Your task to perform on an android device: Search for the best 4K TV Image 0: 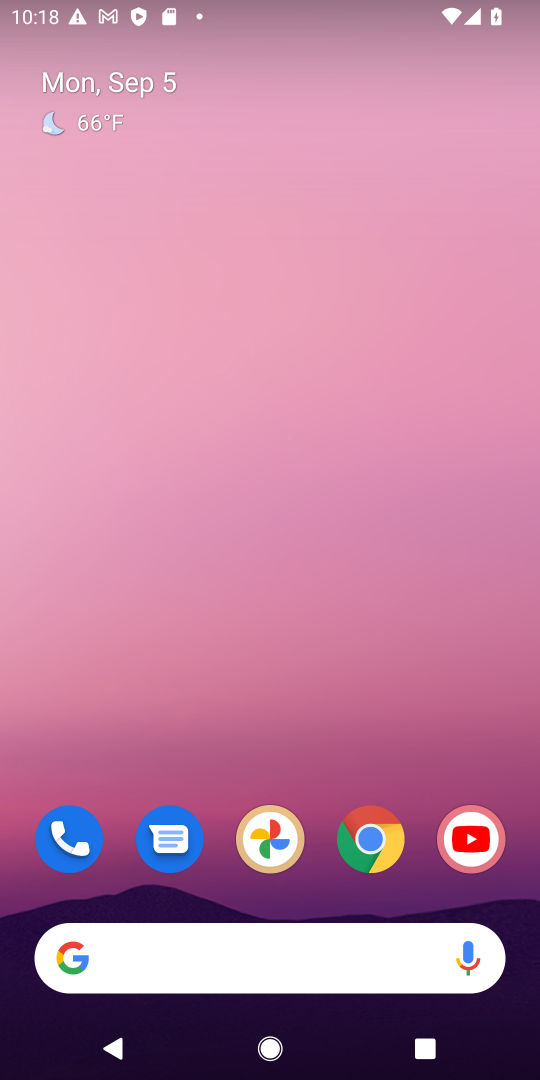
Step 0: drag from (130, 742) to (170, 421)
Your task to perform on an android device: Search for the best 4K TV Image 1: 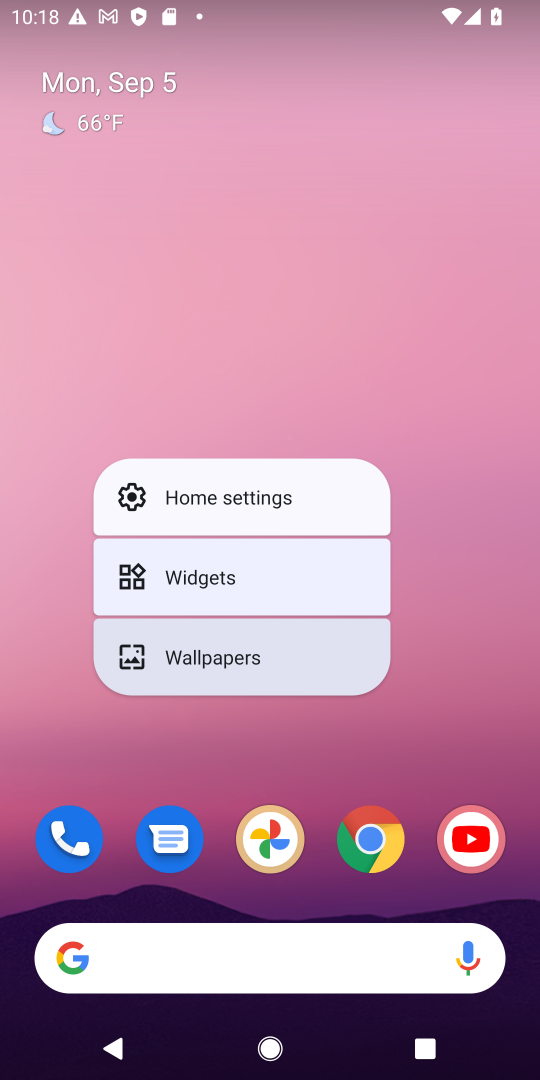
Step 1: drag from (170, 737) to (152, 404)
Your task to perform on an android device: Search for the best 4K TV Image 2: 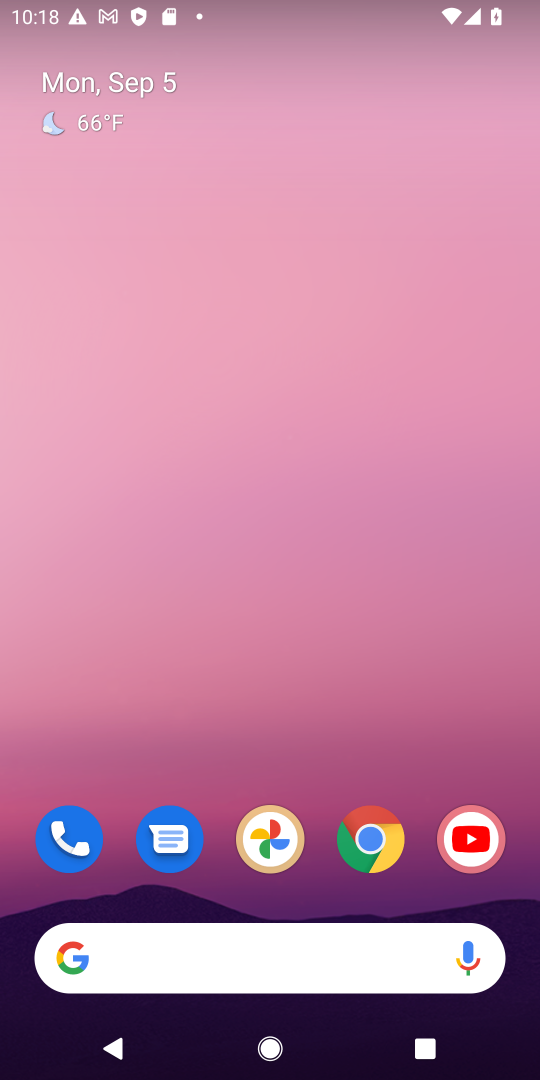
Step 2: drag from (180, 186) to (160, 82)
Your task to perform on an android device: Search for the best 4K TV Image 3: 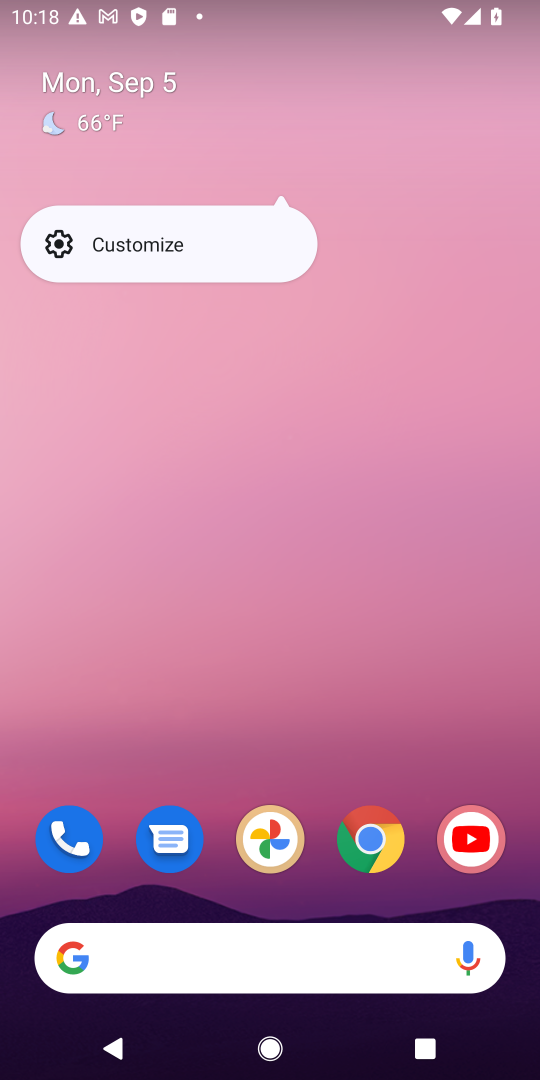
Step 3: click (368, 854)
Your task to perform on an android device: Search for the best 4K TV Image 4: 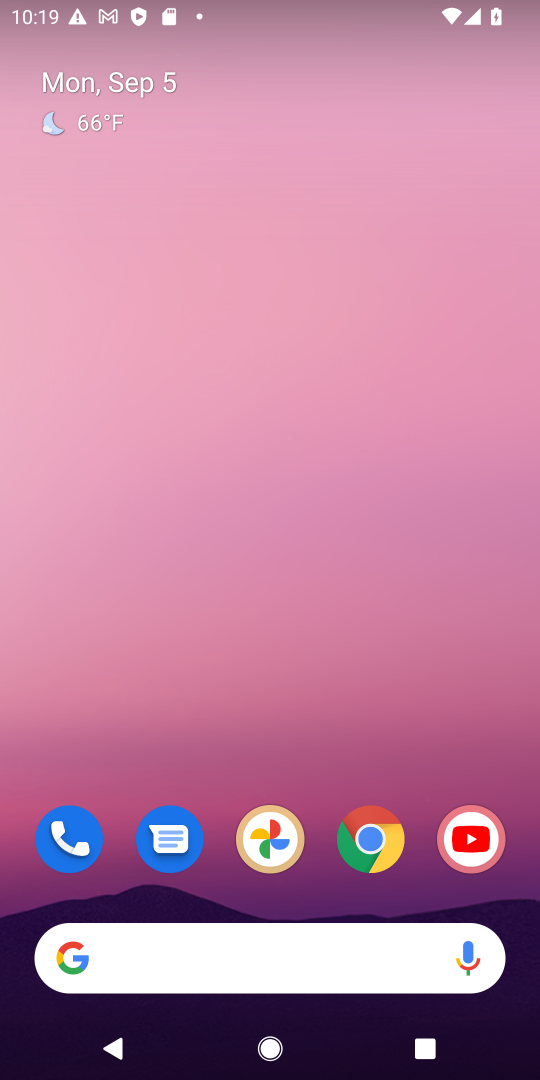
Step 4: drag from (113, 475) to (70, 191)
Your task to perform on an android device: Search for the best 4K TV Image 5: 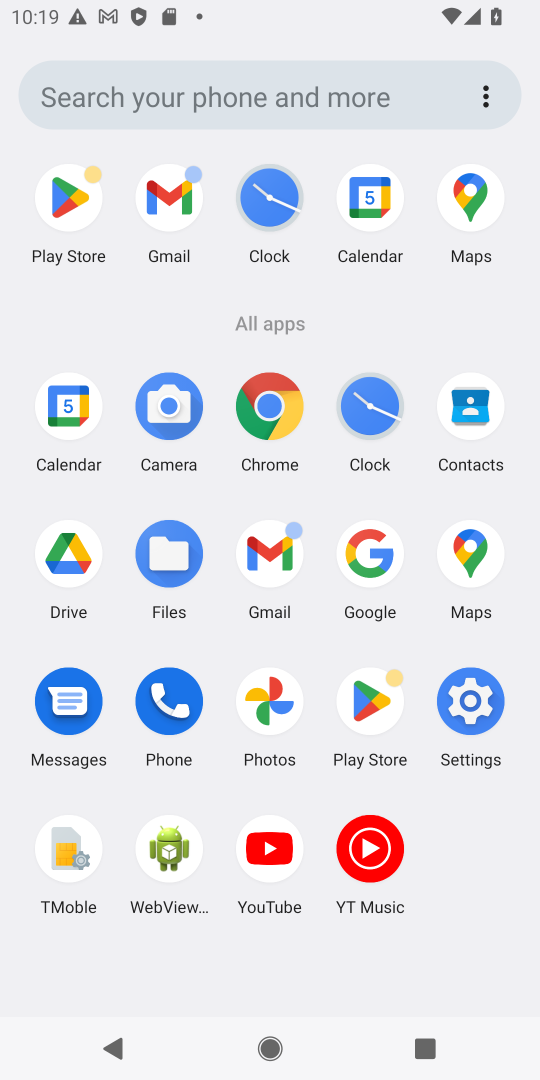
Step 5: click (360, 557)
Your task to perform on an android device: Search for the best 4K TV Image 6: 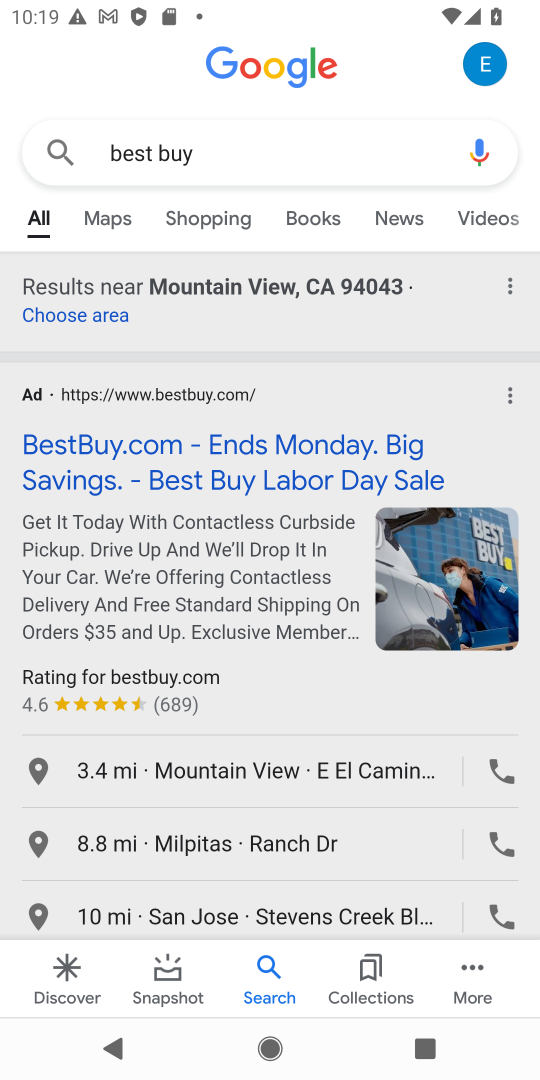
Step 6: click (147, 157)
Your task to perform on an android device: Search for the best 4K TV Image 7: 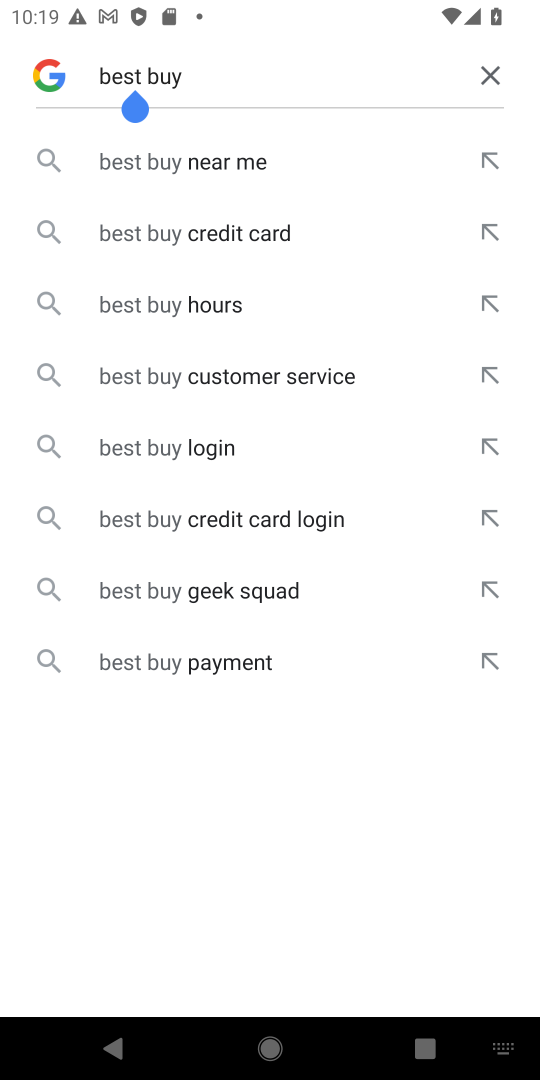
Step 7: click (483, 71)
Your task to perform on an android device: Search for the best 4K TV Image 8: 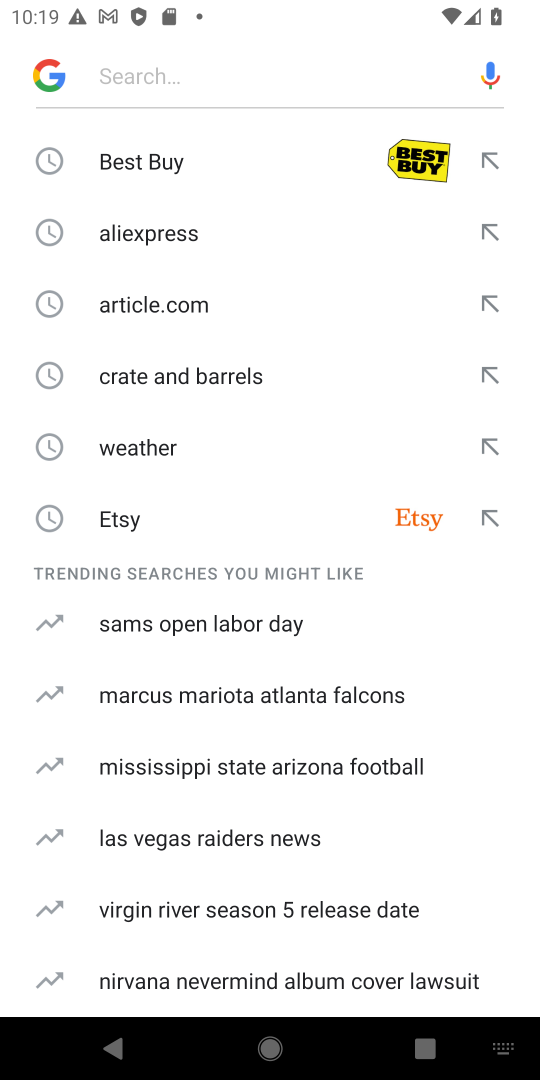
Step 8: type " best 4K TV"
Your task to perform on an android device: Search for the best 4K TV Image 9: 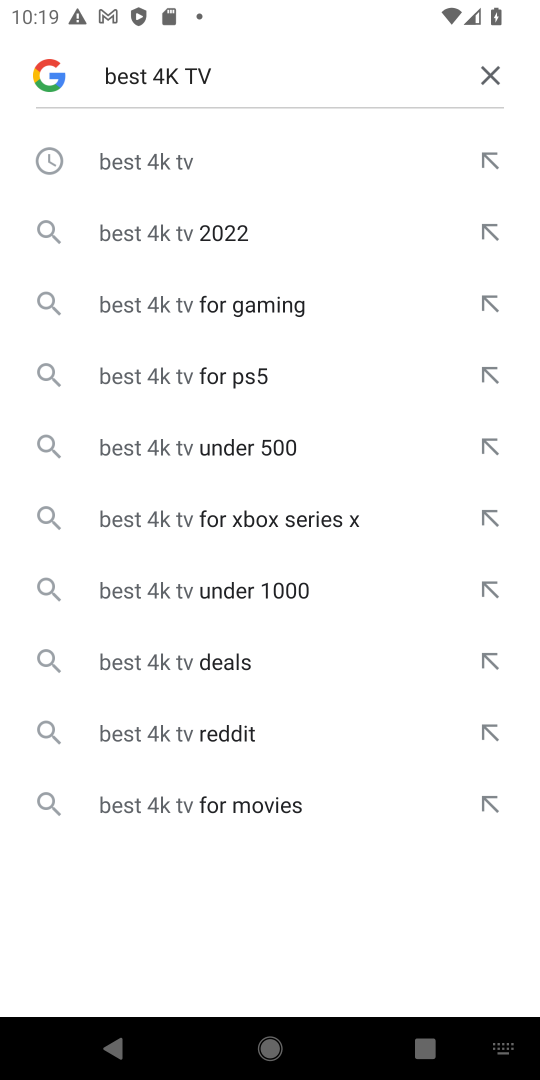
Step 9: click (129, 159)
Your task to perform on an android device: Search for the best 4K TV Image 10: 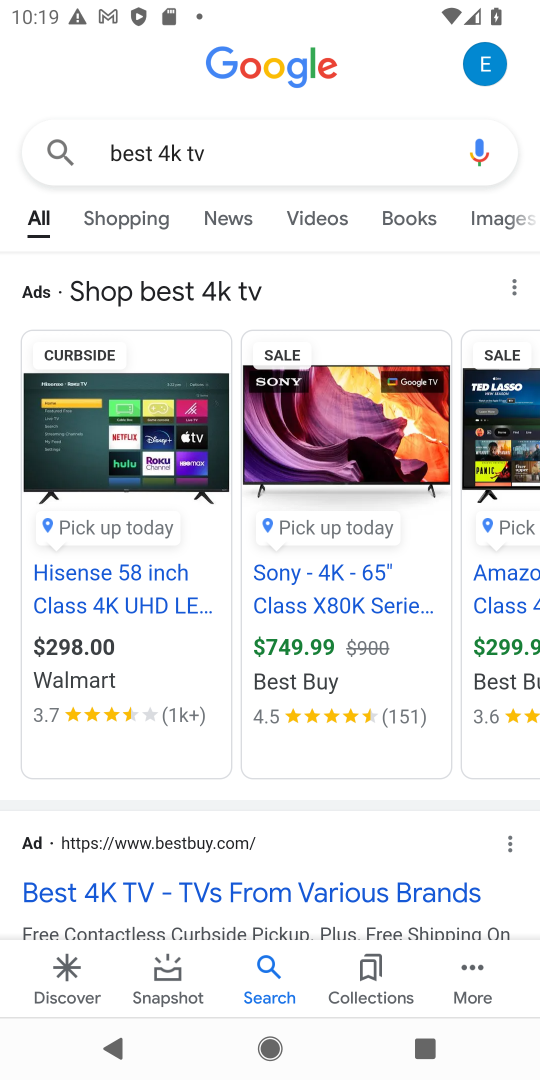
Step 10: drag from (361, 585) to (321, 268)
Your task to perform on an android device: Search for the best 4K TV Image 11: 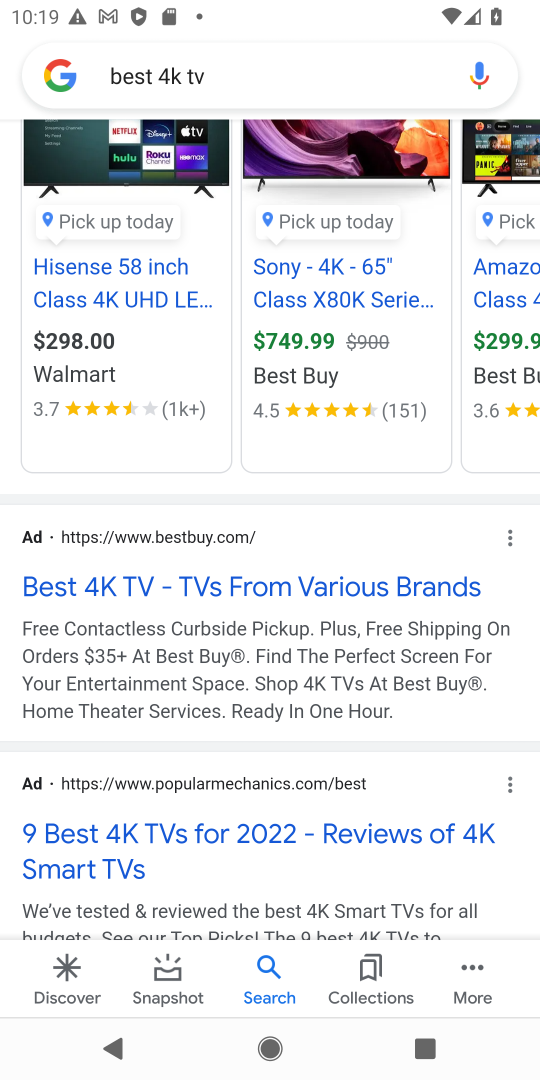
Step 11: click (243, 567)
Your task to perform on an android device: Search for the best 4K TV Image 12: 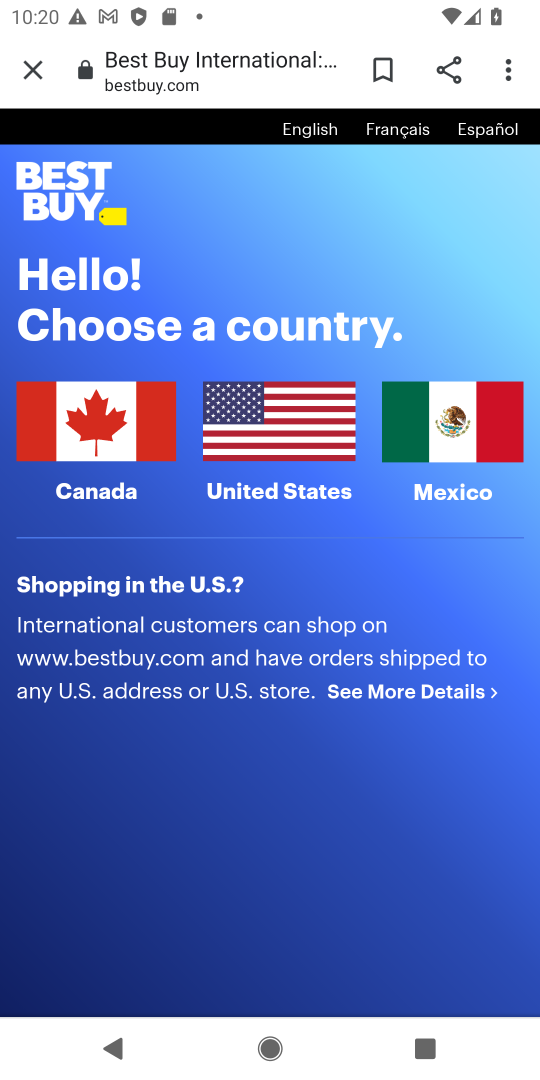
Step 12: task complete